Your task to perform on an android device: Open privacy settings Image 0: 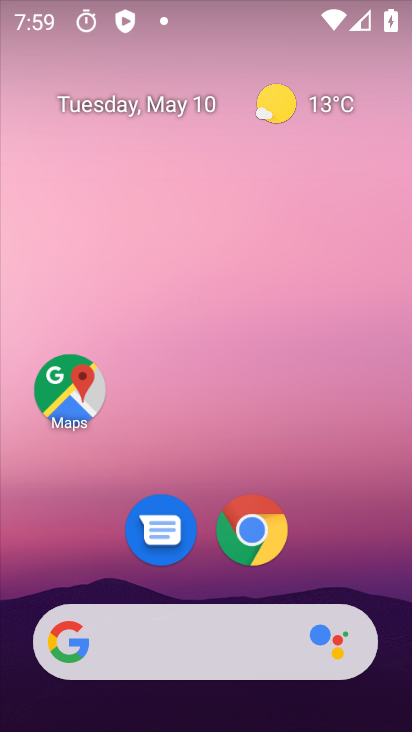
Step 0: drag from (382, 563) to (299, 79)
Your task to perform on an android device: Open privacy settings Image 1: 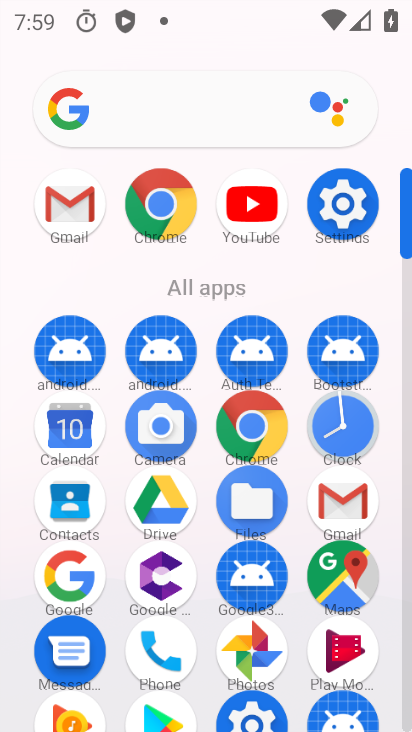
Step 1: click (358, 194)
Your task to perform on an android device: Open privacy settings Image 2: 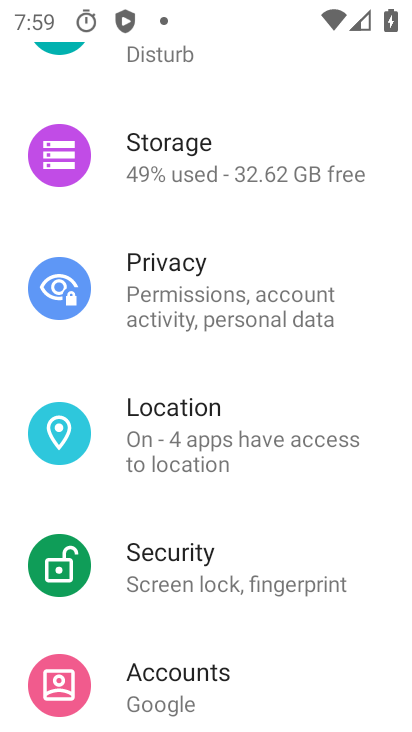
Step 2: drag from (230, 49) to (340, 593)
Your task to perform on an android device: Open privacy settings Image 3: 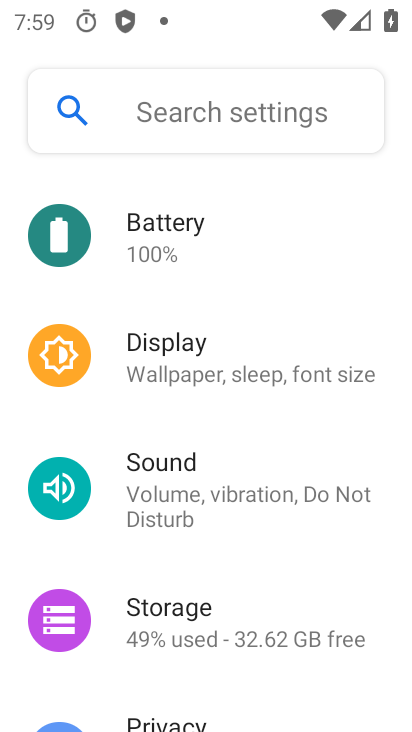
Step 3: drag from (248, 549) to (249, 8)
Your task to perform on an android device: Open privacy settings Image 4: 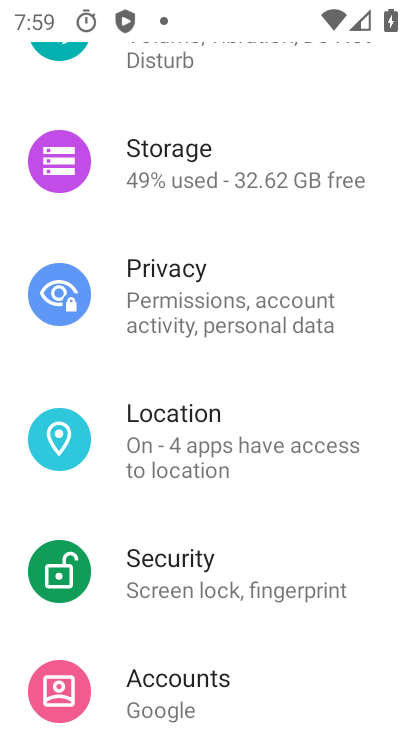
Step 4: drag from (267, 546) to (274, 0)
Your task to perform on an android device: Open privacy settings Image 5: 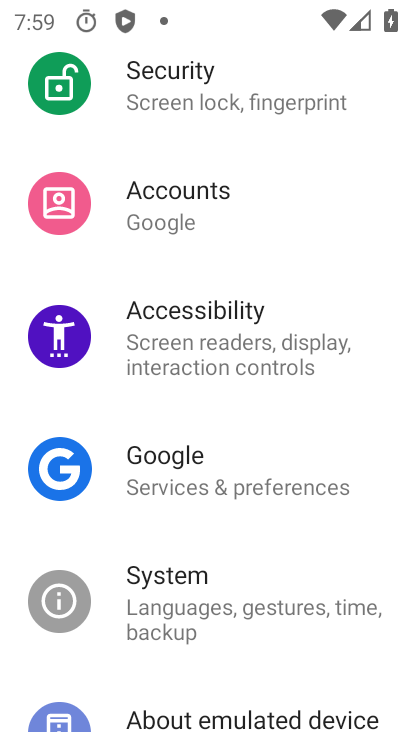
Step 5: drag from (242, 205) to (283, 575)
Your task to perform on an android device: Open privacy settings Image 6: 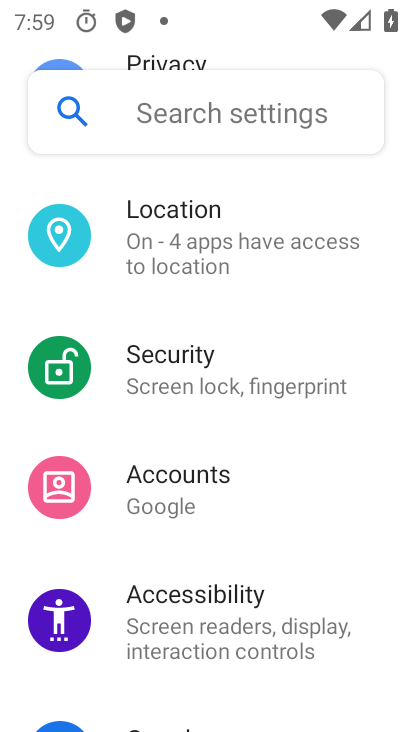
Step 6: drag from (213, 226) to (296, 566)
Your task to perform on an android device: Open privacy settings Image 7: 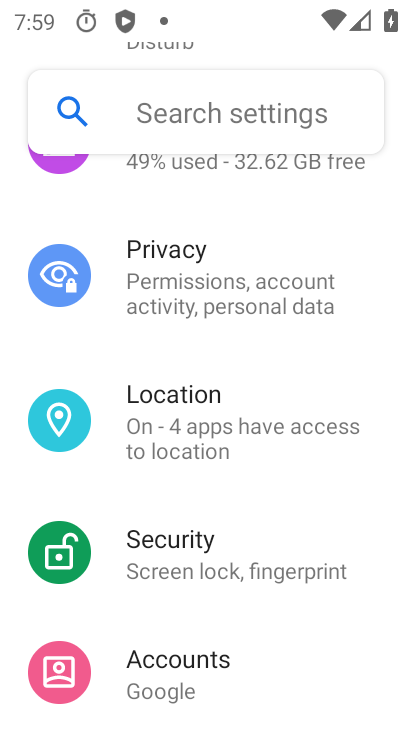
Step 7: click (241, 300)
Your task to perform on an android device: Open privacy settings Image 8: 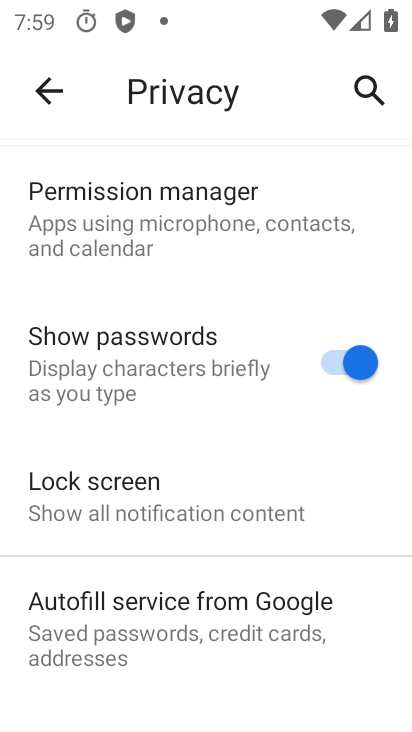
Step 8: task complete